Your task to perform on an android device: Open Chrome and go to the settings page Image 0: 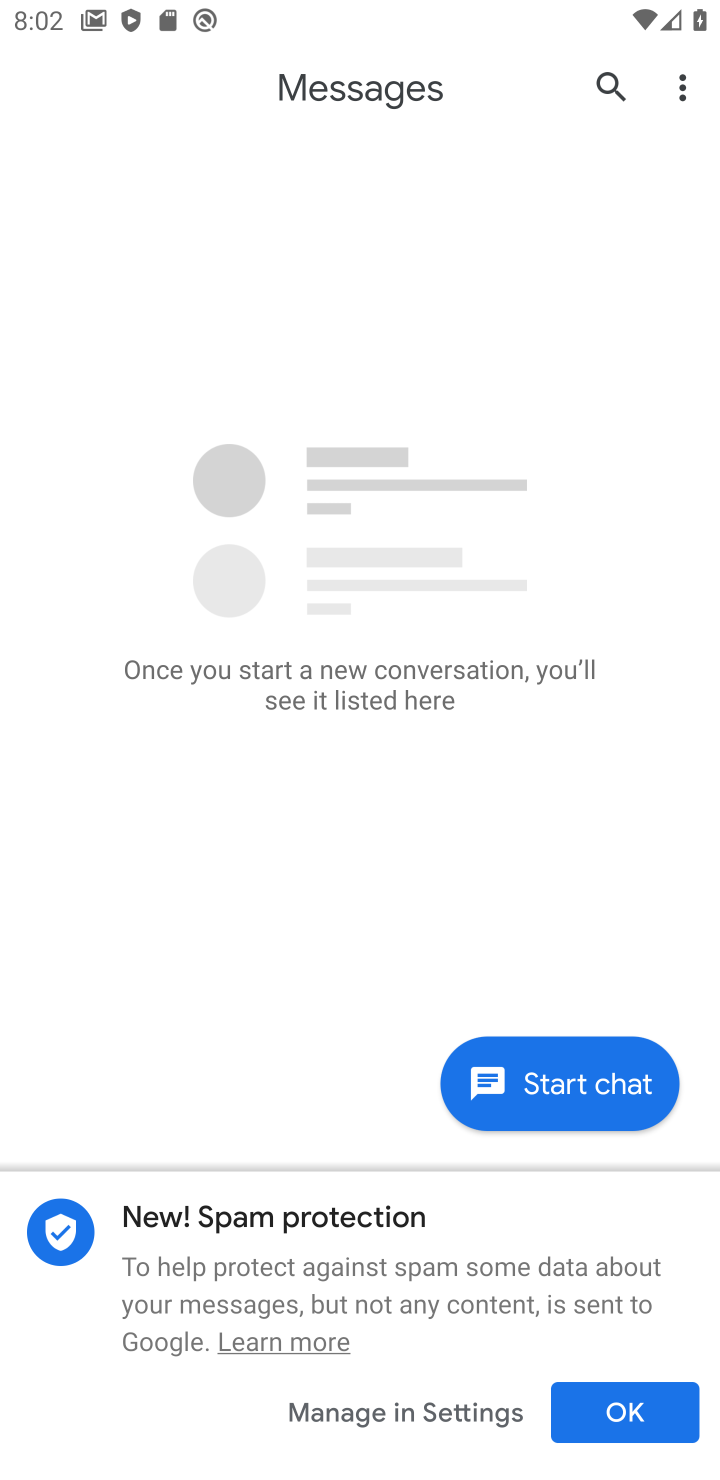
Step 0: press home button
Your task to perform on an android device: Open Chrome and go to the settings page Image 1: 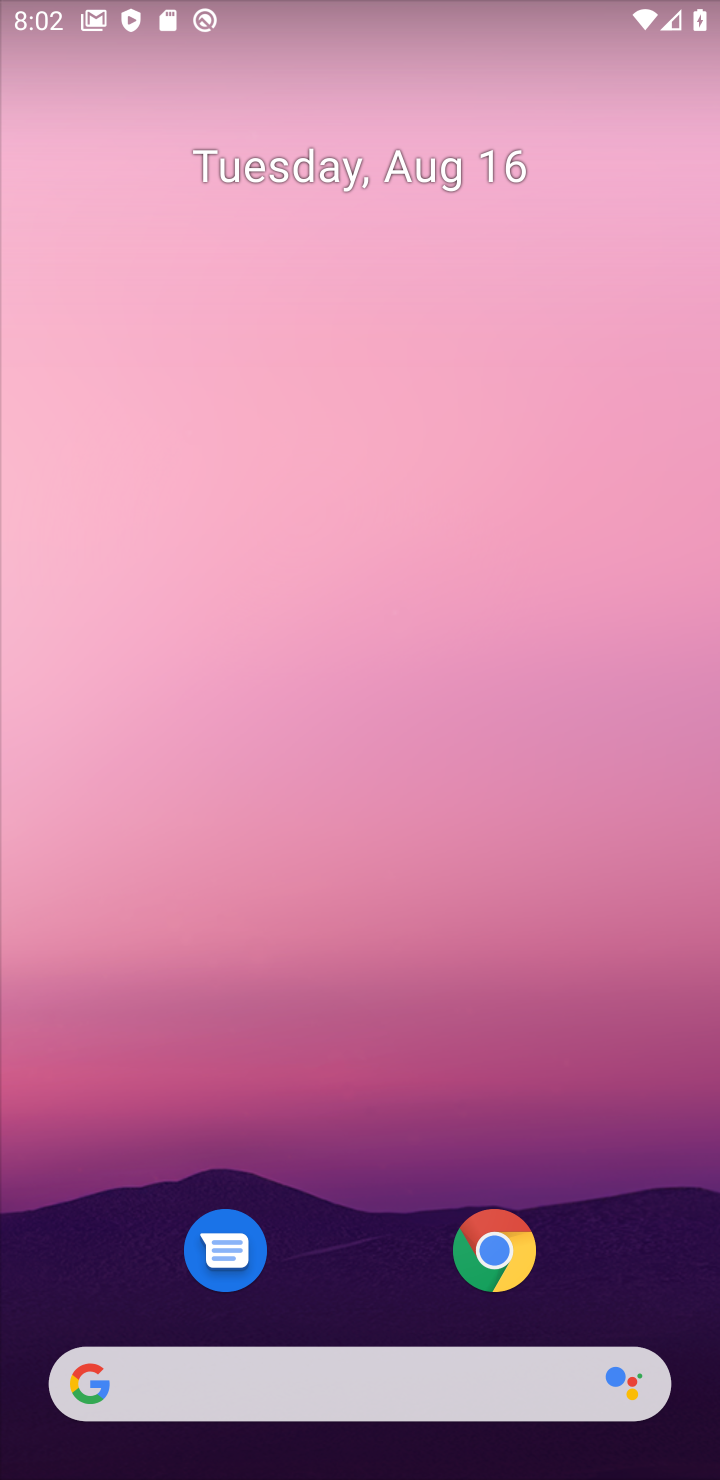
Step 1: click (510, 1252)
Your task to perform on an android device: Open Chrome and go to the settings page Image 2: 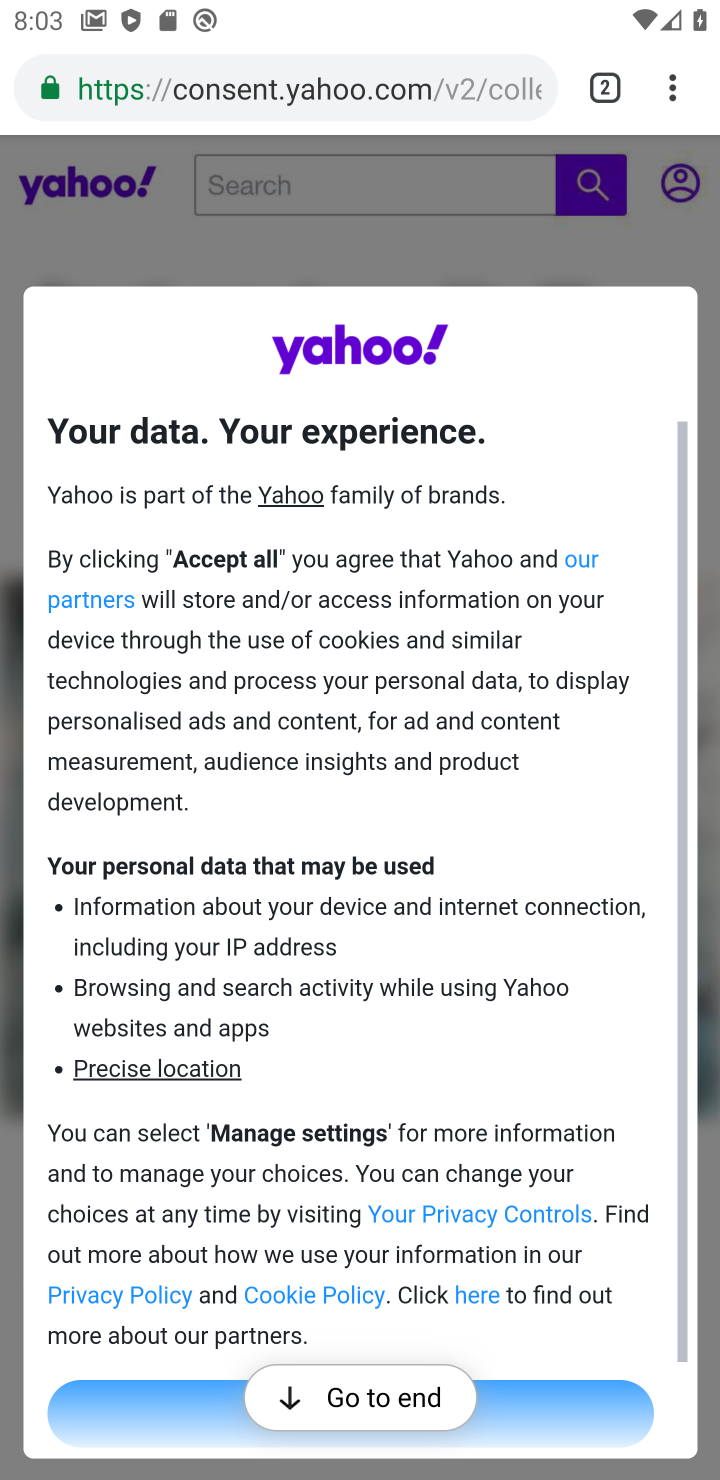
Step 2: click (444, 1083)
Your task to perform on an android device: Open Chrome and go to the settings page Image 3: 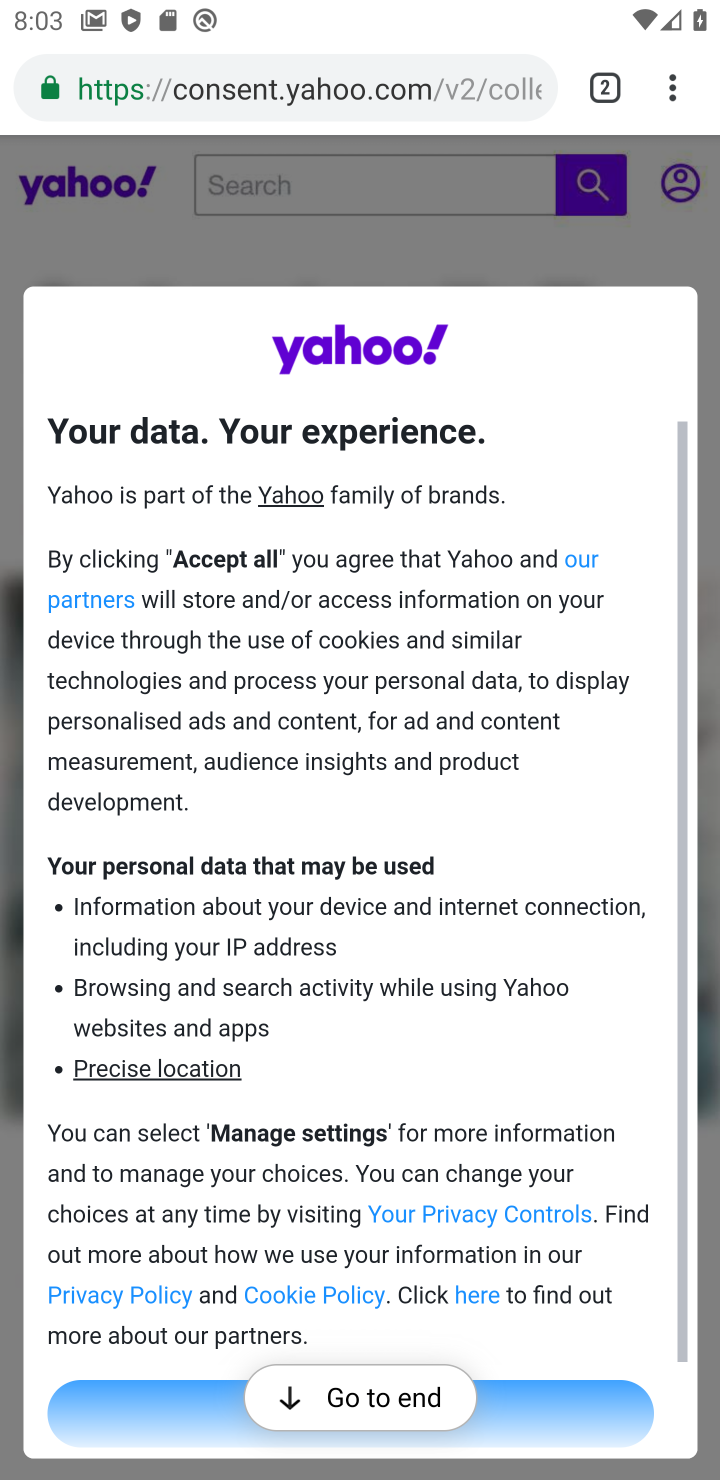
Step 3: click (674, 81)
Your task to perform on an android device: Open Chrome and go to the settings page Image 4: 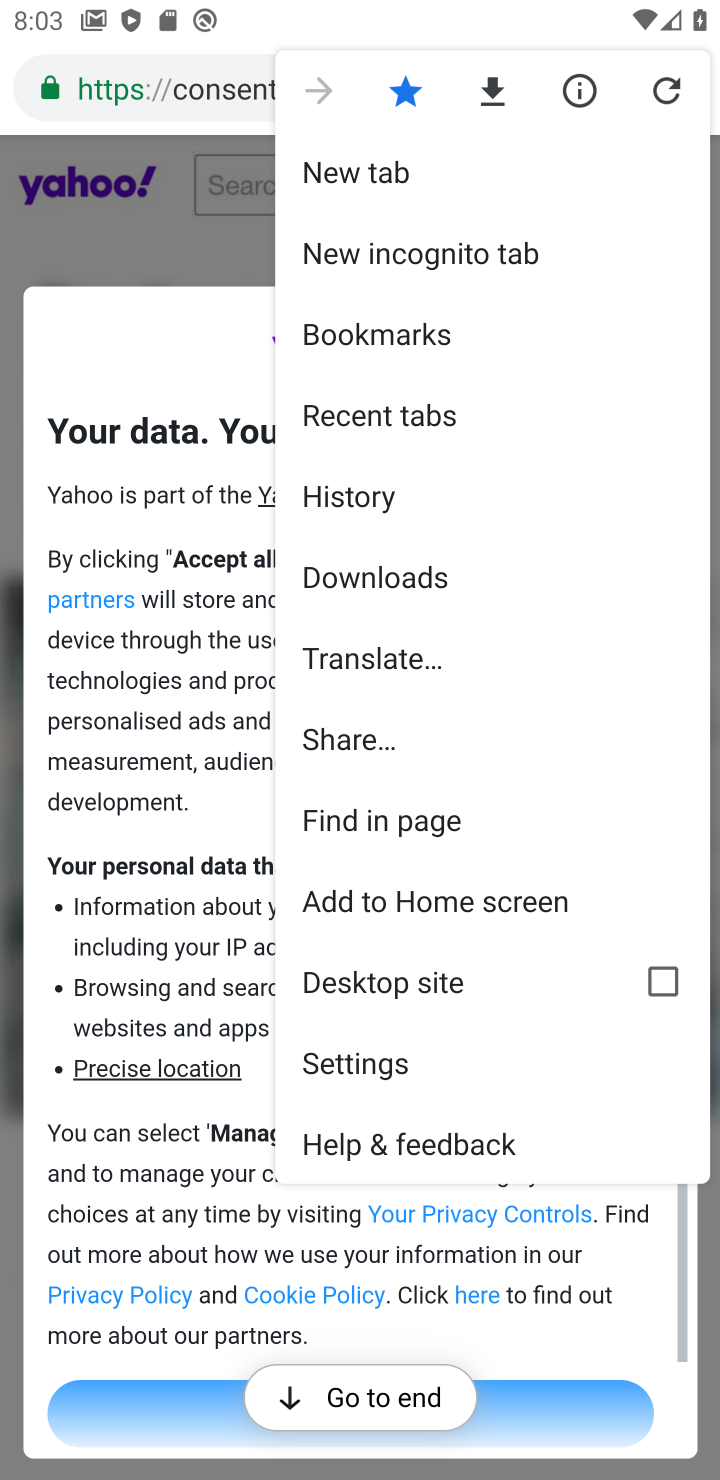
Step 4: click (344, 1059)
Your task to perform on an android device: Open Chrome and go to the settings page Image 5: 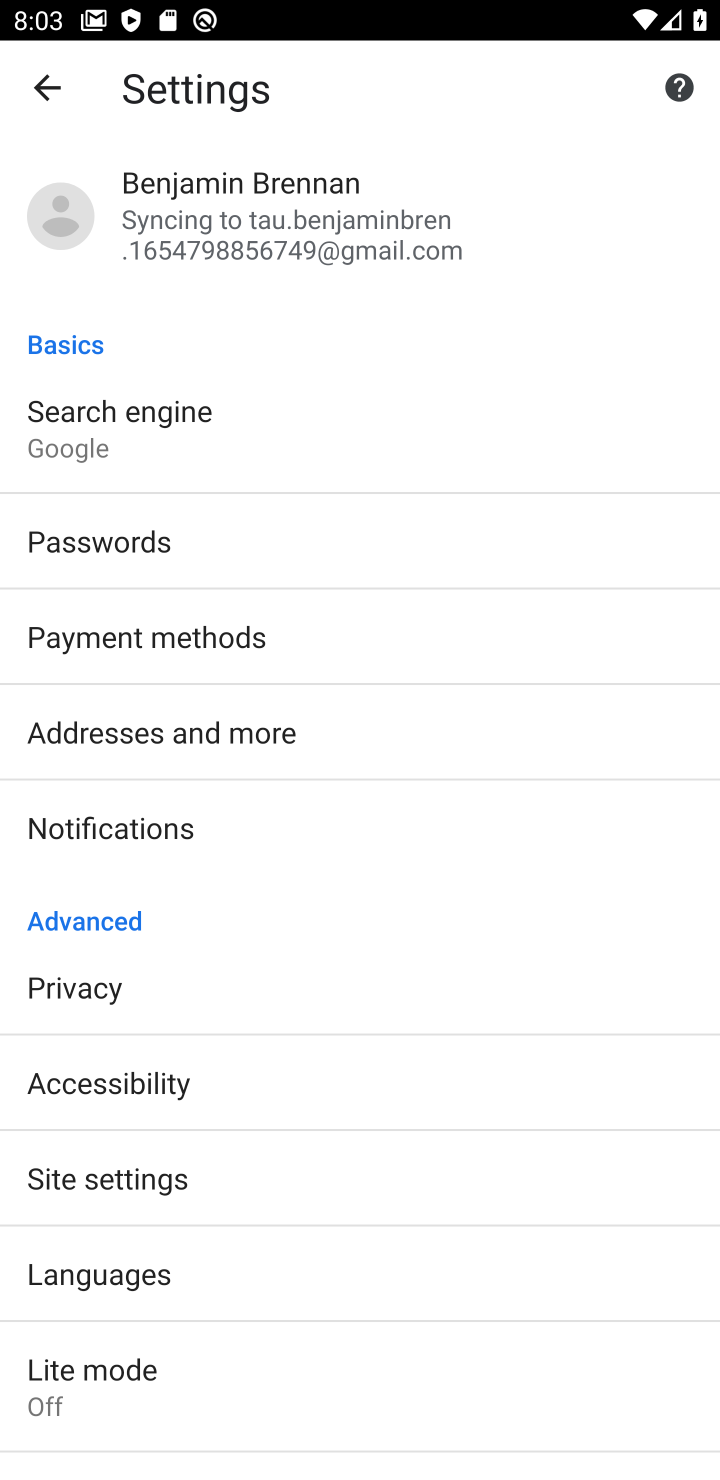
Step 5: task complete